Your task to perform on an android device: Search for vegetarian restaurants on Maps Image 0: 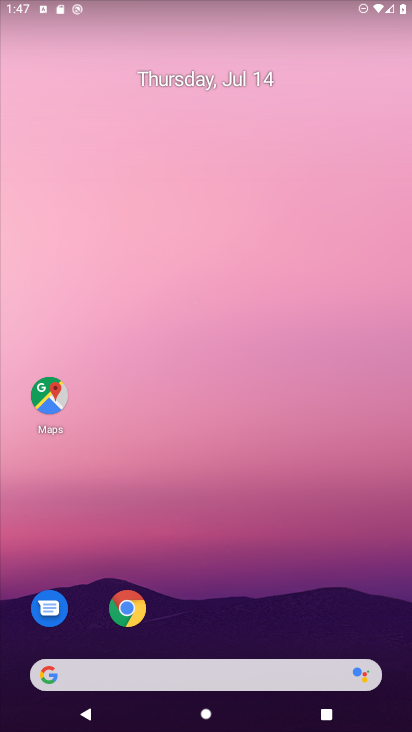
Step 0: click (50, 396)
Your task to perform on an android device: Search for vegetarian restaurants on Maps Image 1: 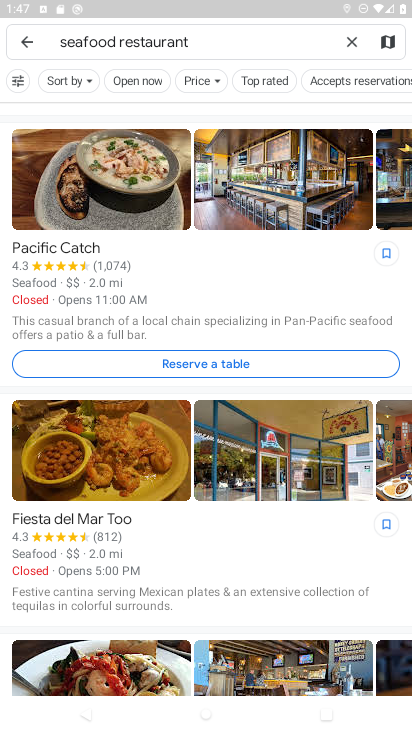
Step 1: click (347, 38)
Your task to perform on an android device: Search for vegetarian restaurants on Maps Image 2: 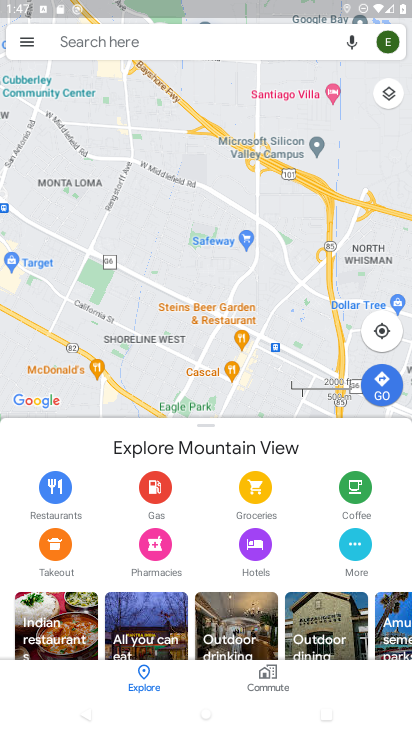
Step 2: click (140, 39)
Your task to perform on an android device: Search for vegetarian restaurants on Maps Image 3: 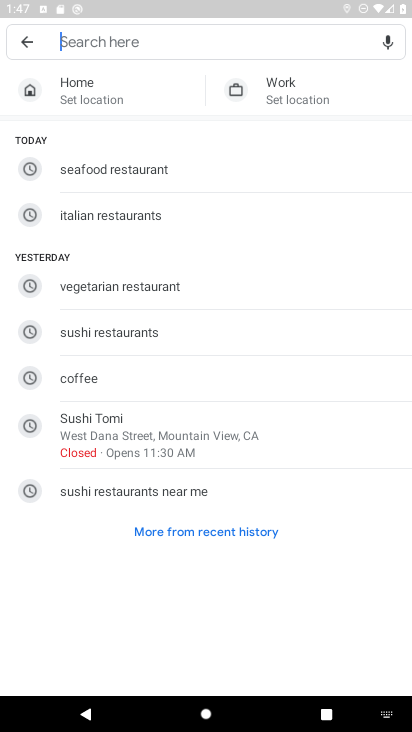
Step 3: type "vegetarian restaurants"
Your task to perform on an android device: Search for vegetarian restaurants on Maps Image 4: 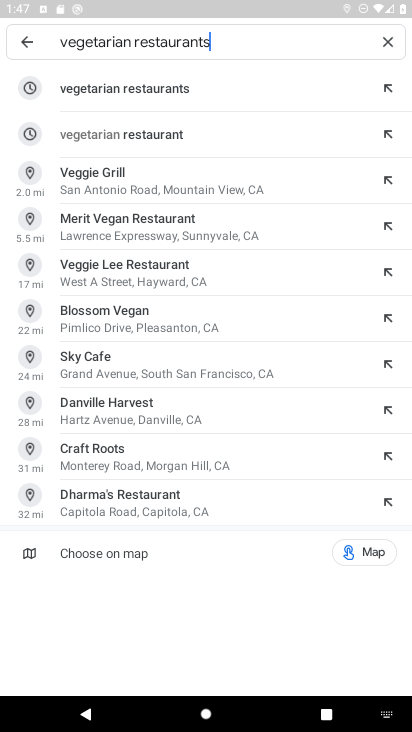
Step 4: click (144, 84)
Your task to perform on an android device: Search for vegetarian restaurants on Maps Image 5: 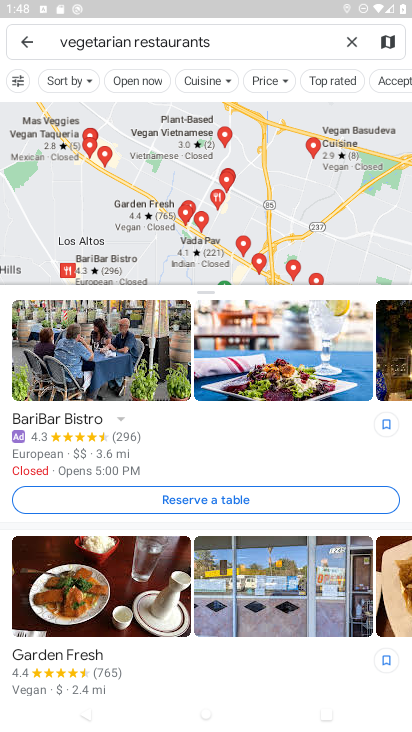
Step 5: task complete